Your task to perform on an android device: Search for a small bookcase on Ikea.com Image 0: 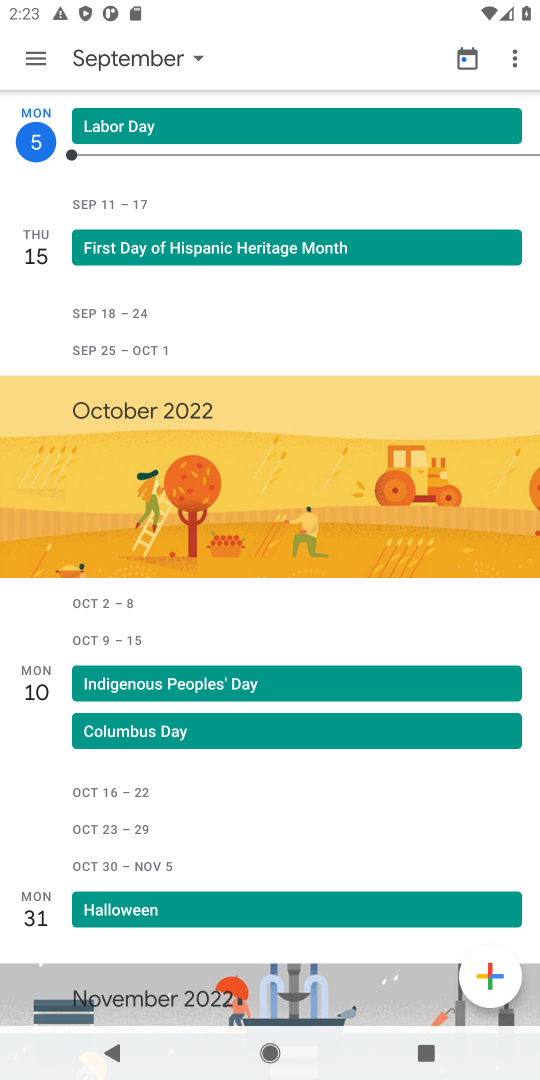
Step 0: press home button
Your task to perform on an android device: Search for a small bookcase on Ikea.com Image 1: 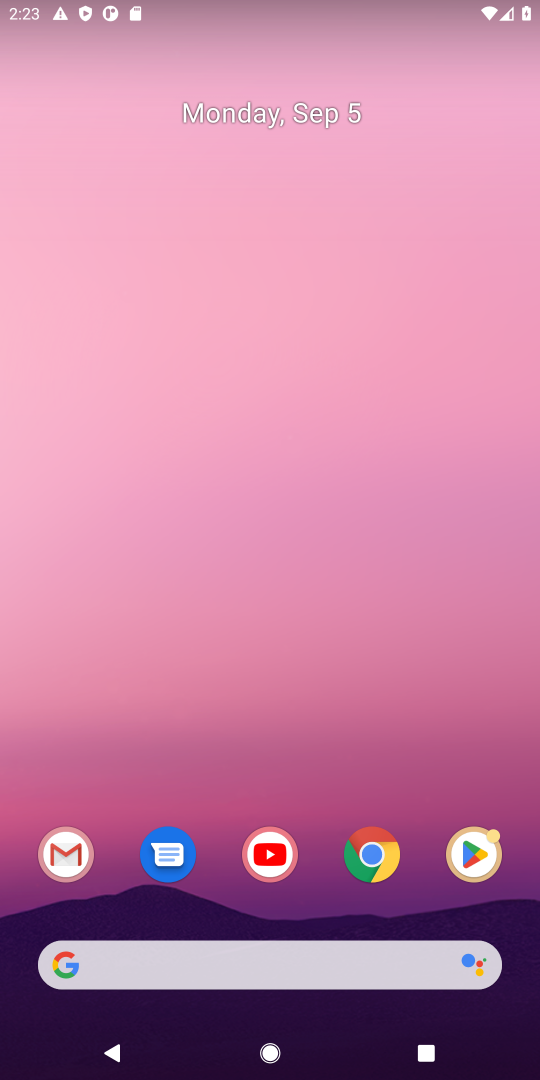
Step 1: click (352, 957)
Your task to perform on an android device: Search for a small bookcase on Ikea.com Image 2: 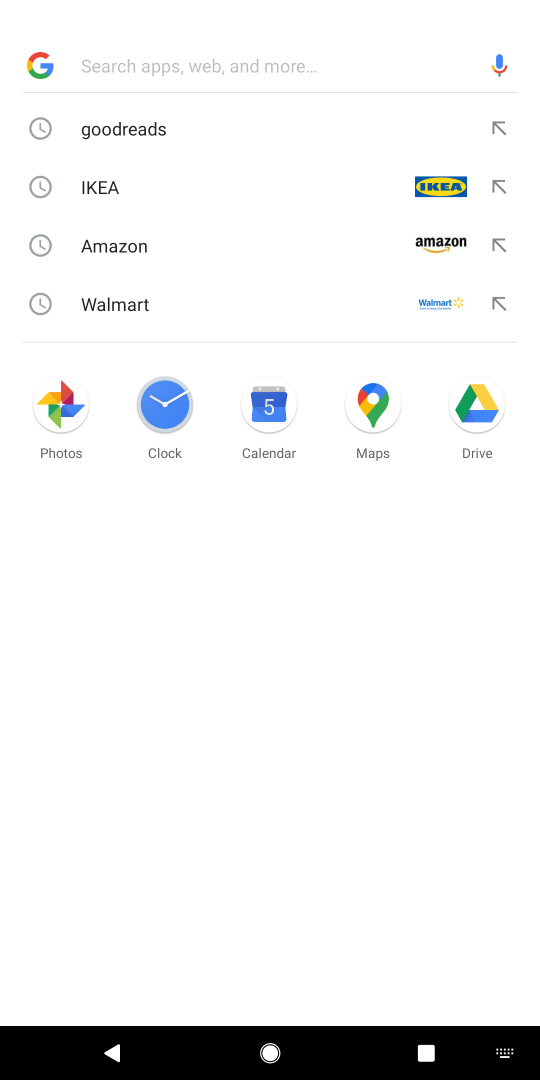
Step 2: type "ikea.com"
Your task to perform on an android device: Search for a small bookcase on Ikea.com Image 3: 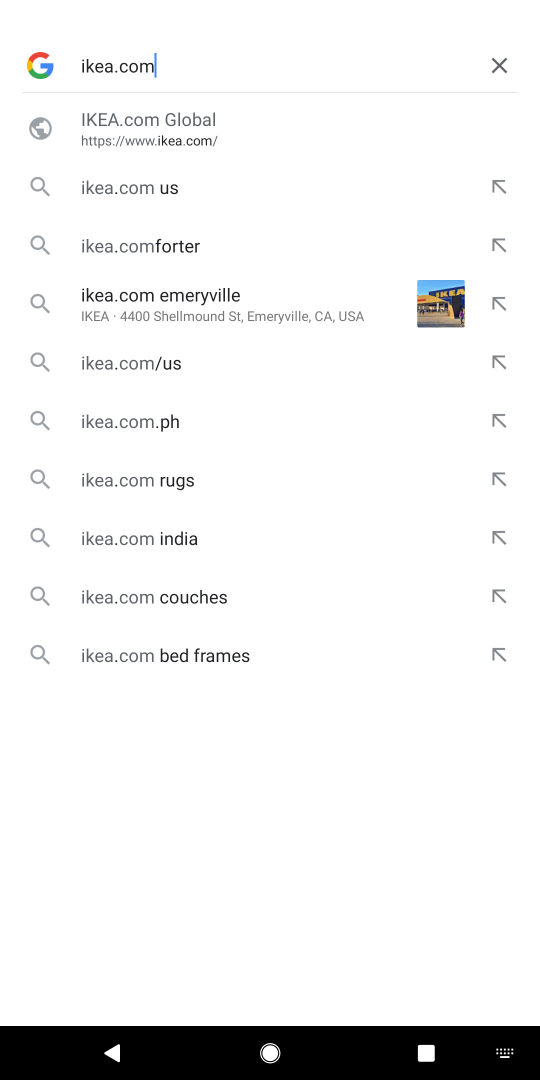
Step 3: press enter
Your task to perform on an android device: Search for a small bookcase on Ikea.com Image 4: 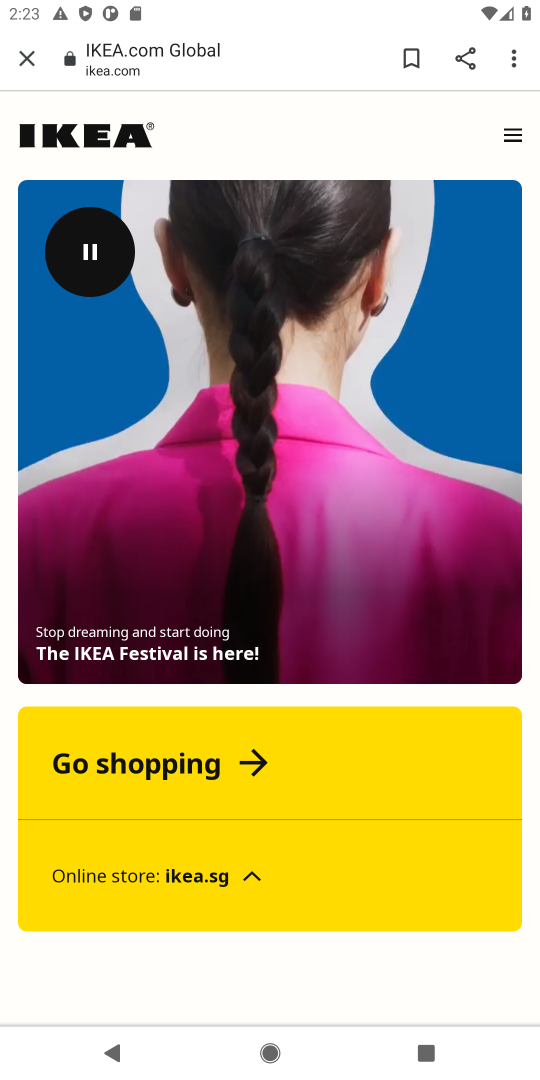
Step 4: click (270, 759)
Your task to perform on an android device: Search for a small bookcase on Ikea.com Image 5: 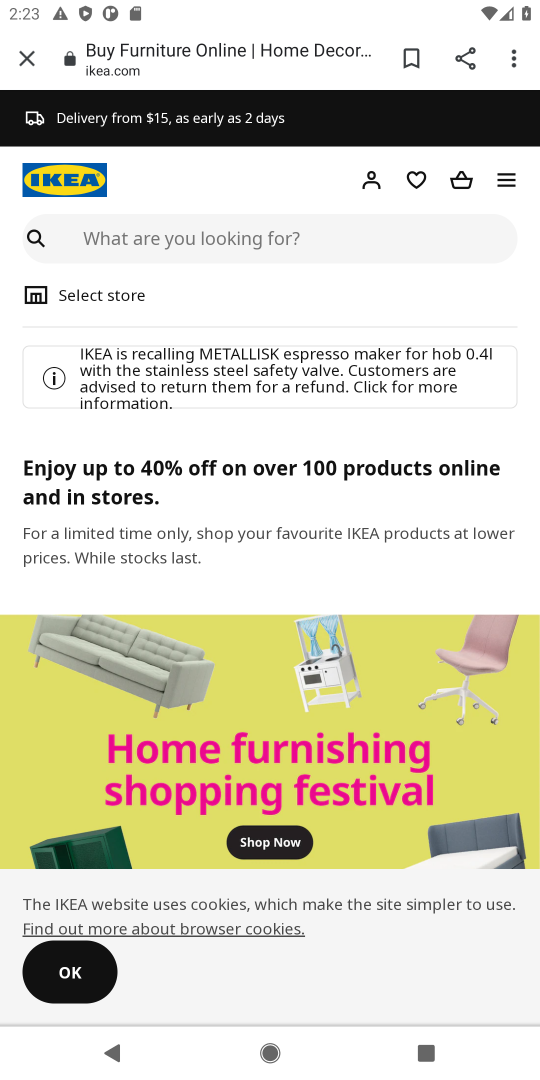
Step 5: click (194, 231)
Your task to perform on an android device: Search for a small bookcase on Ikea.com Image 6: 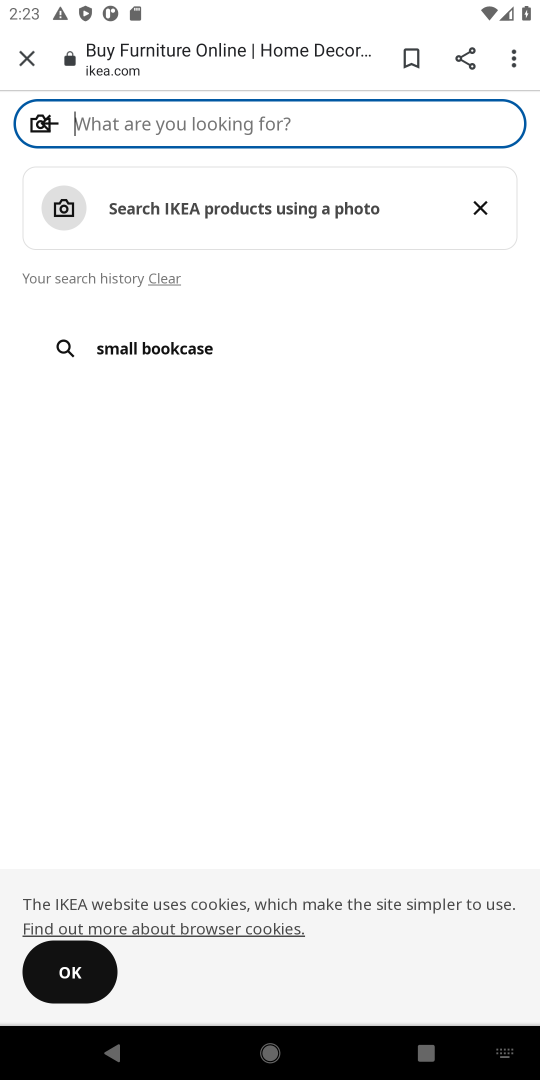
Step 6: type "small bookcase"
Your task to perform on an android device: Search for a small bookcase on Ikea.com Image 7: 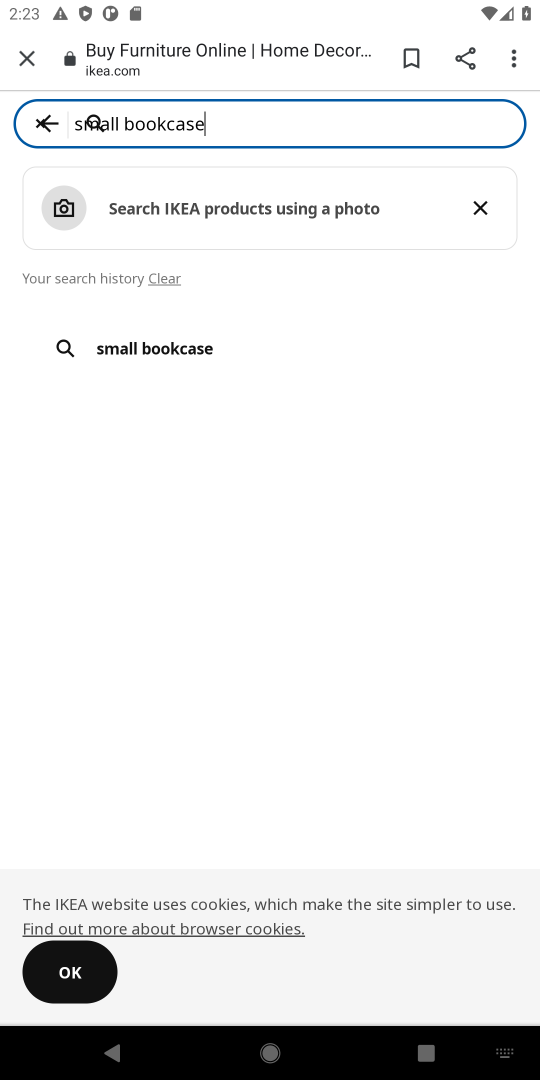
Step 7: press enter
Your task to perform on an android device: Search for a small bookcase on Ikea.com Image 8: 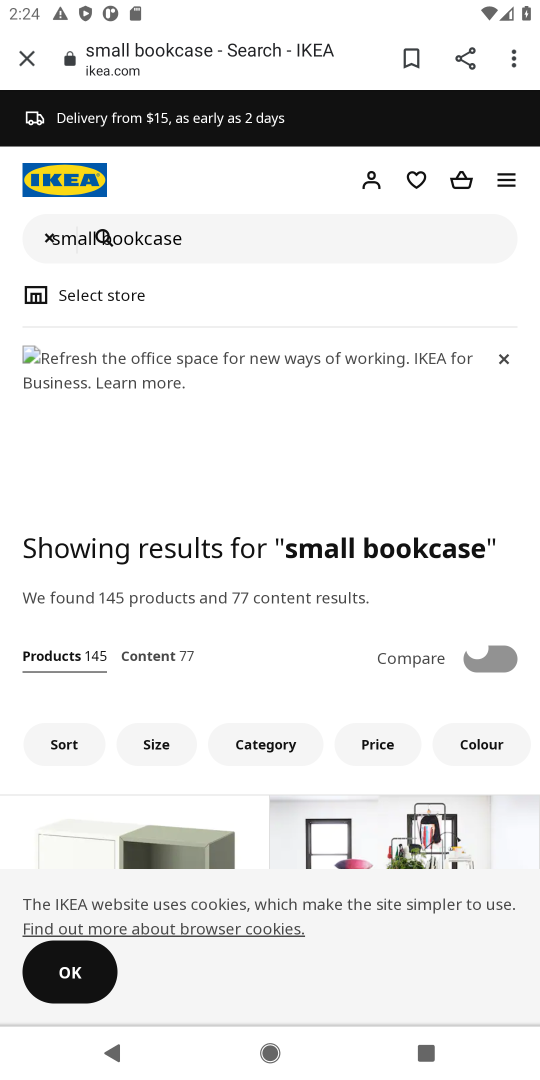
Step 8: task complete